Your task to perform on an android device: turn on the 24-hour format for clock Image 0: 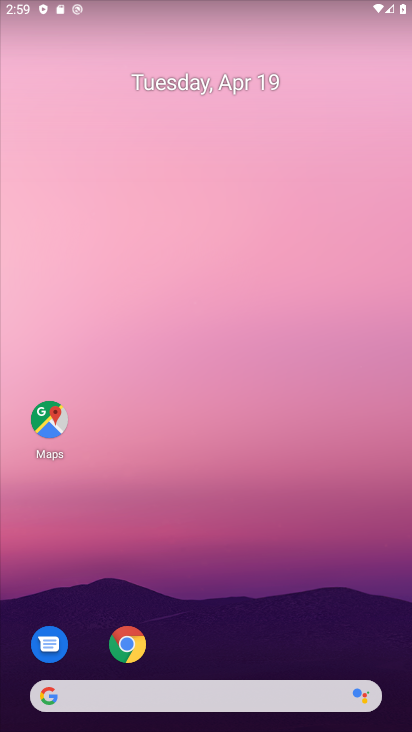
Step 0: drag from (376, 625) to (359, 318)
Your task to perform on an android device: turn on the 24-hour format for clock Image 1: 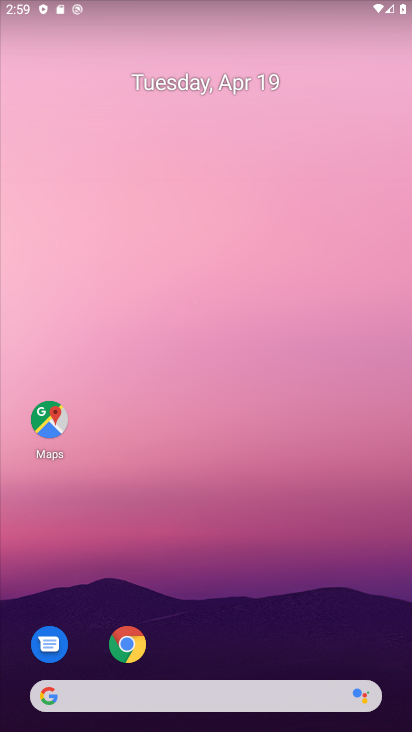
Step 1: drag from (368, 623) to (345, 276)
Your task to perform on an android device: turn on the 24-hour format for clock Image 2: 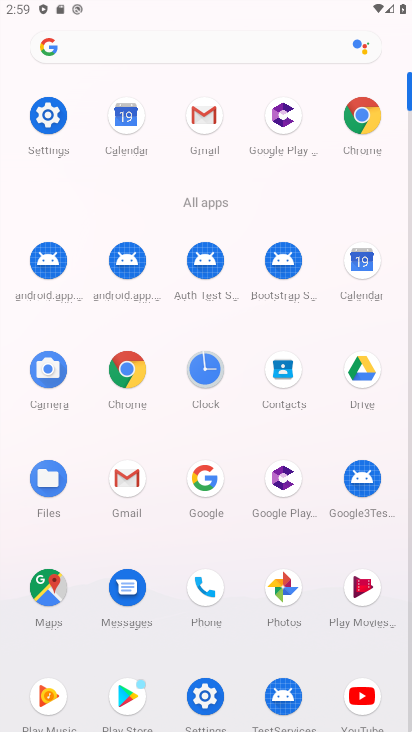
Step 2: click (208, 369)
Your task to perform on an android device: turn on the 24-hour format for clock Image 3: 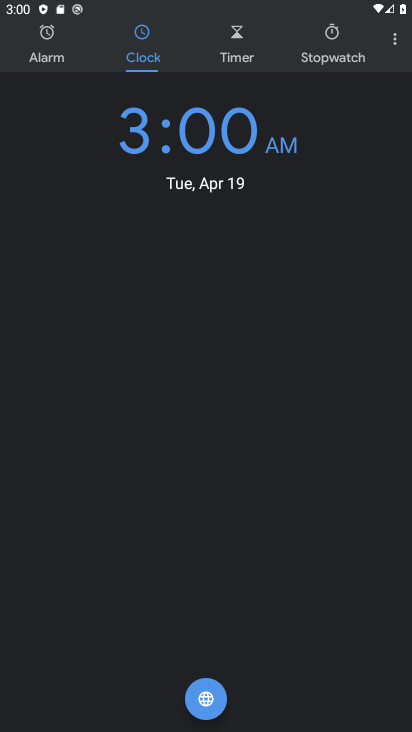
Step 3: click (396, 40)
Your task to perform on an android device: turn on the 24-hour format for clock Image 4: 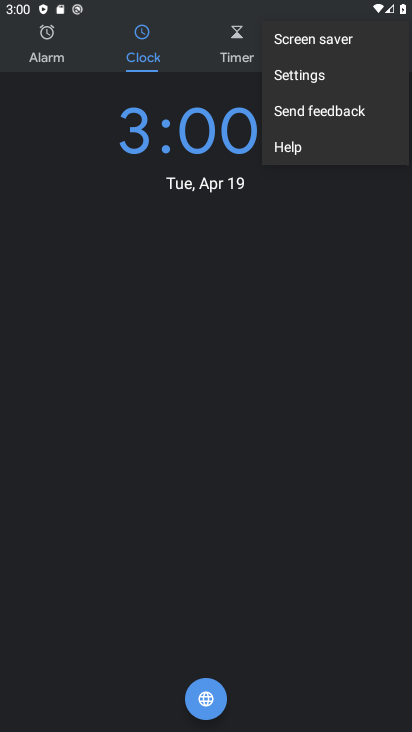
Step 4: click (285, 66)
Your task to perform on an android device: turn on the 24-hour format for clock Image 5: 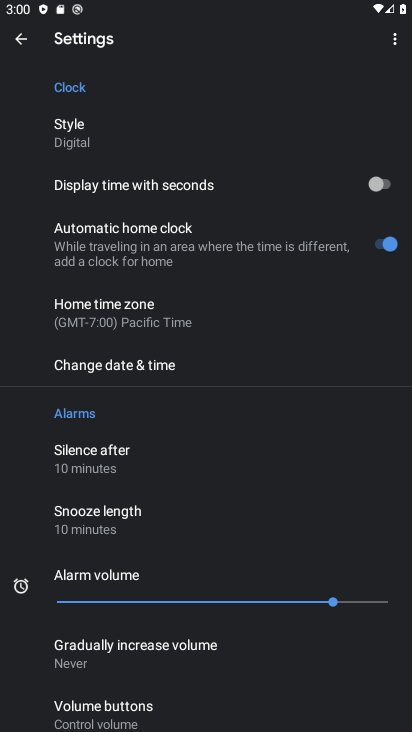
Step 5: click (121, 367)
Your task to perform on an android device: turn on the 24-hour format for clock Image 6: 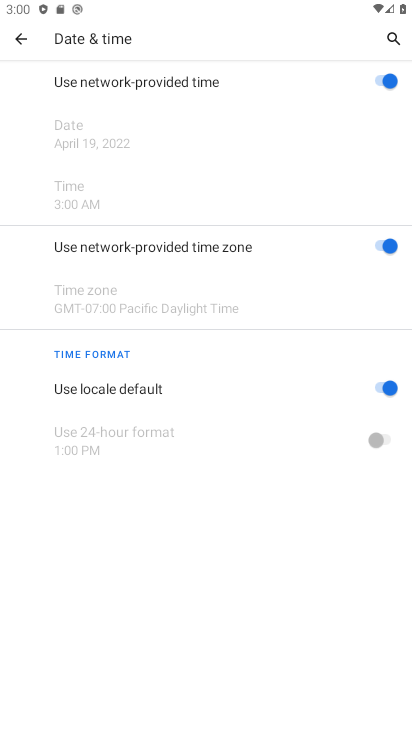
Step 6: click (376, 384)
Your task to perform on an android device: turn on the 24-hour format for clock Image 7: 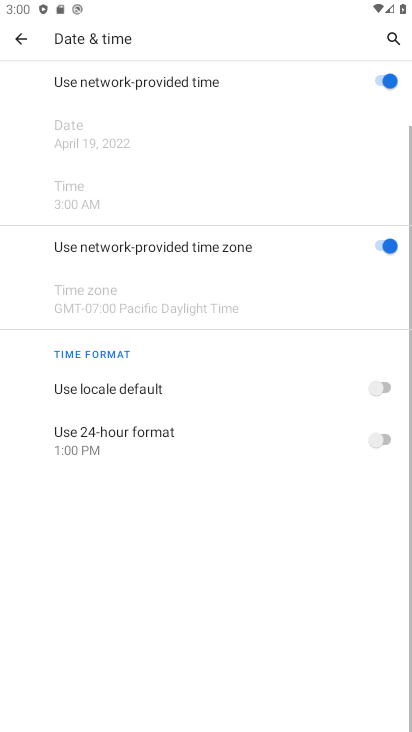
Step 7: click (385, 438)
Your task to perform on an android device: turn on the 24-hour format for clock Image 8: 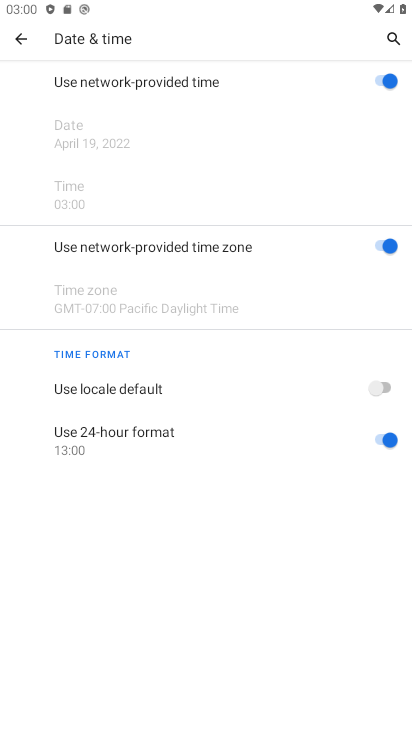
Step 8: task complete